Your task to perform on an android device: delete browsing data in the chrome app Image 0: 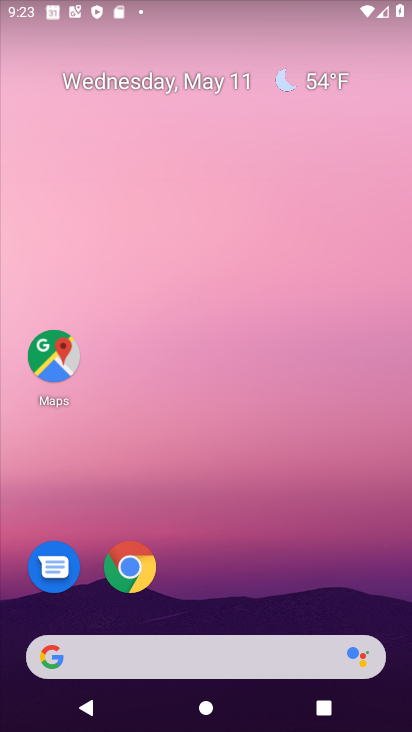
Step 0: click (134, 568)
Your task to perform on an android device: delete browsing data in the chrome app Image 1: 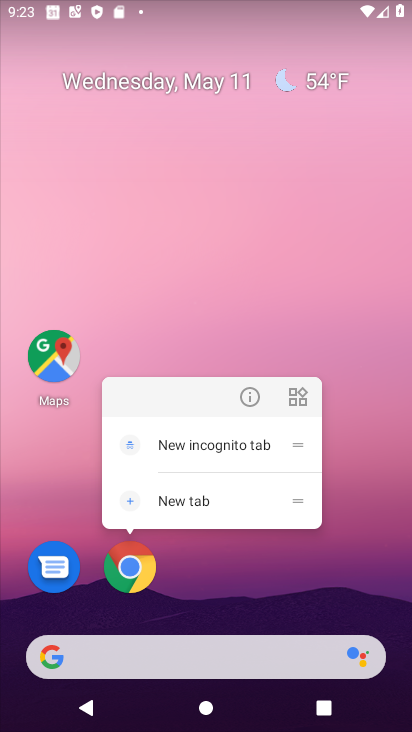
Step 1: click (133, 570)
Your task to perform on an android device: delete browsing data in the chrome app Image 2: 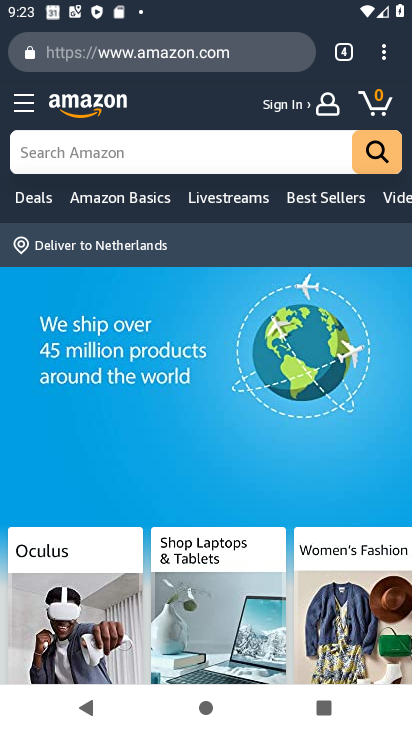
Step 2: click (380, 56)
Your task to perform on an android device: delete browsing data in the chrome app Image 3: 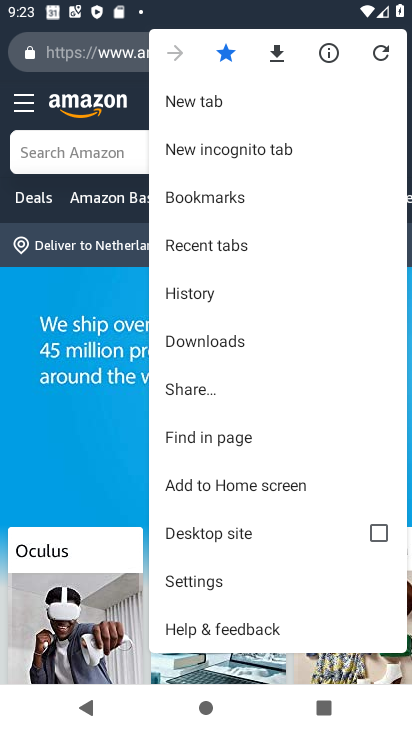
Step 3: click (177, 290)
Your task to perform on an android device: delete browsing data in the chrome app Image 4: 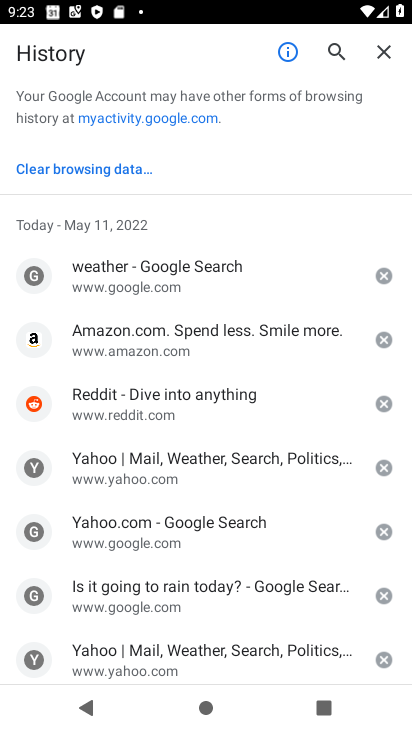
Step 4: click (124, 174)
Your task to perform on an android device: delete browsing data in the chrome app Image 5: 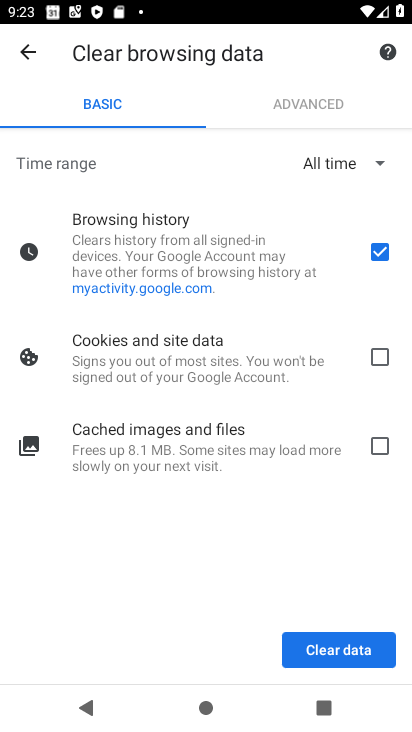
Step 5: click (361, 446)
Your task to perform on an android device: delete browsing data in the chrome app Image 6: 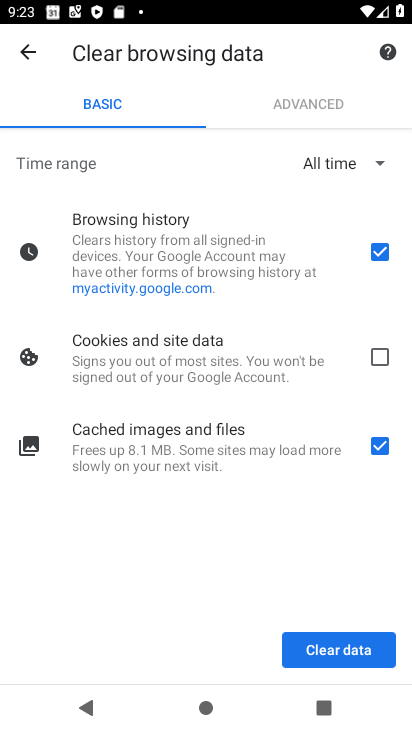
Step 6: click (370, 344)
Your task to perform on an android device: delete browsing data in the chrome app Image 7: 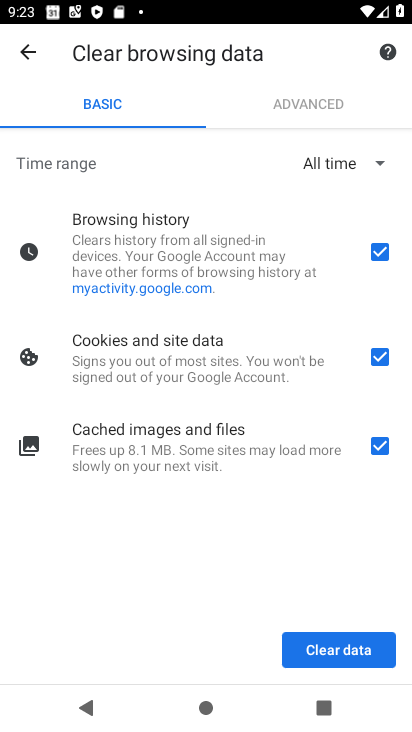
Step 7: click (352, 652)
Your task to perform on an android device: delete browsing data in the chrome app Image 8: 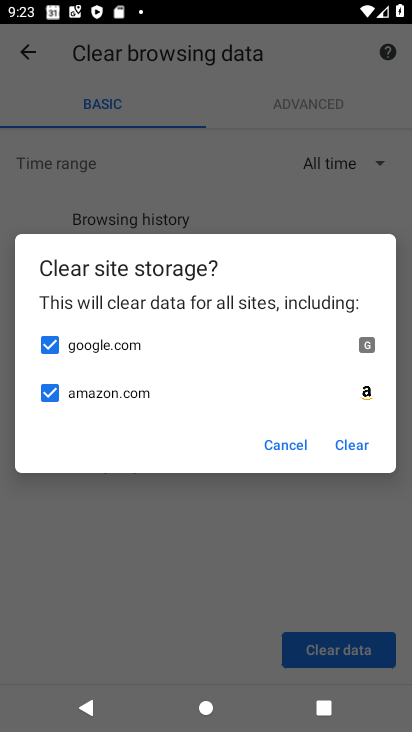
Step 8: click (355, 445)
Your task to perform on an android device: delete browsing data in the chrome app Image 9: 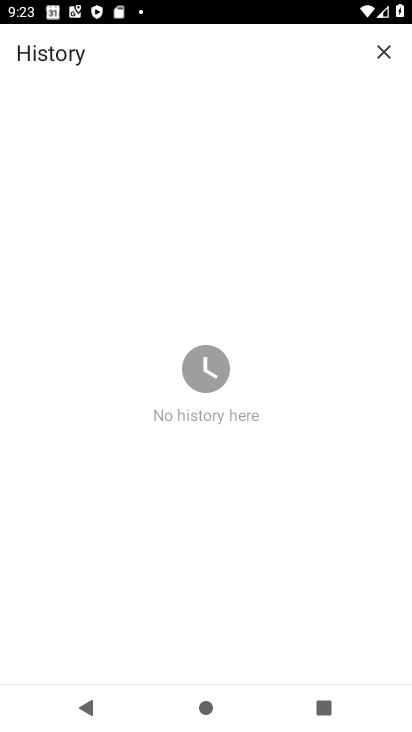
Step 9: task complete